Your task to perform on an android device: Do I have any events this weekend? Image 0: 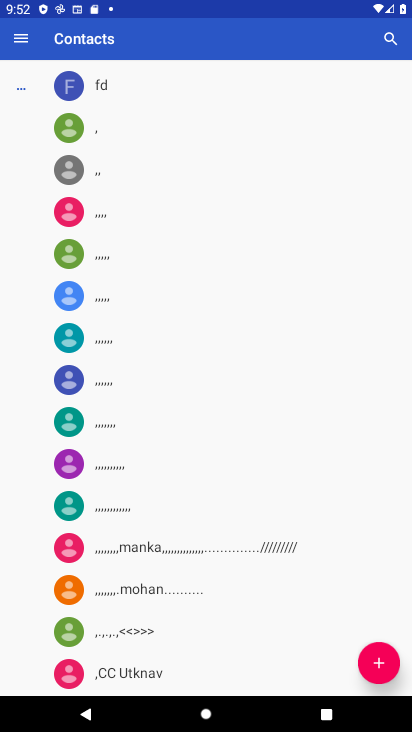
Step 0: drag from (255, 493) to (155, 11)
Your task to perform on an android device: Do I have any events this weekend? Image 1: 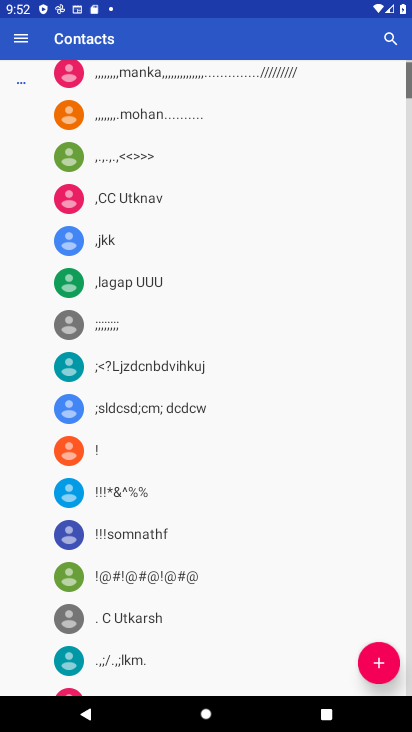
Step 1: press home button
Your task to perform on an android device: Do I have any events this weekend? Image 2: 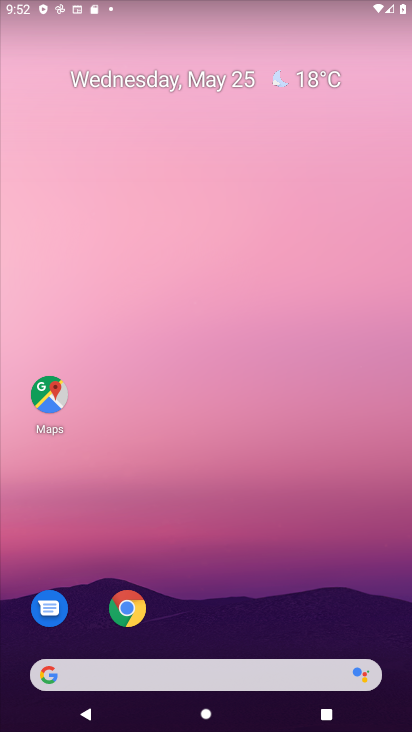
Step 2: click (200, 74)
Your task to perform on an android device: Do I have any events this weekend? Image 3: 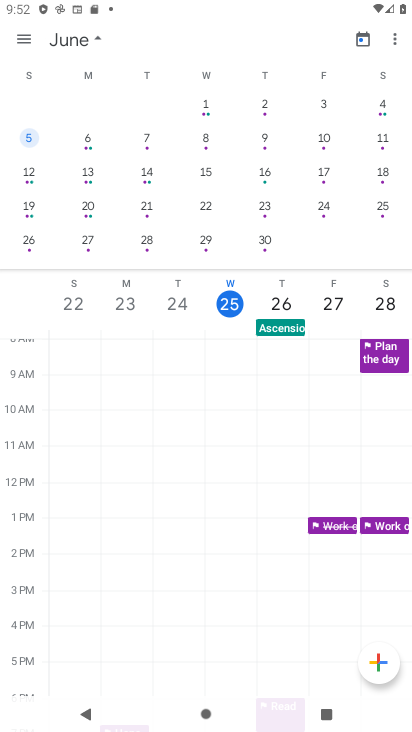
Step 3: task complete